Your task to perform on an android device: open a bookmark in the chrome app Image 0: 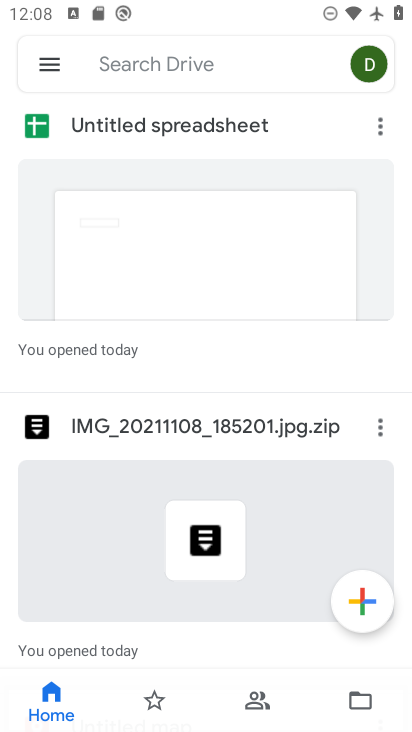
Step 0: press home button
Your task to perform on an android device: open a bookmark in the chrome app Image 1: 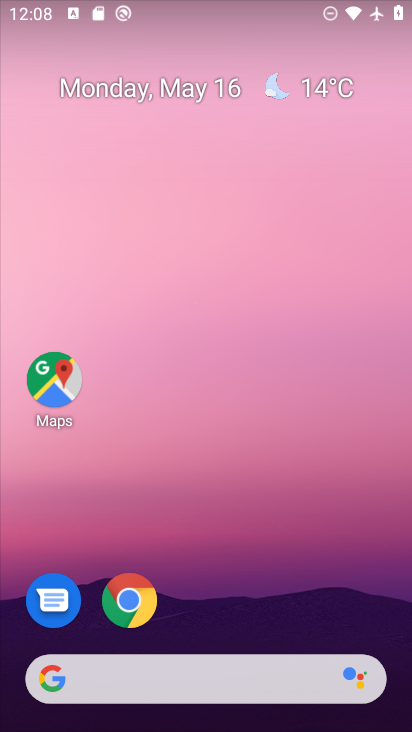
Step 1: click (129, 598)
Your task to perform on an android device: open a bookmark in the chrome app Image 2: 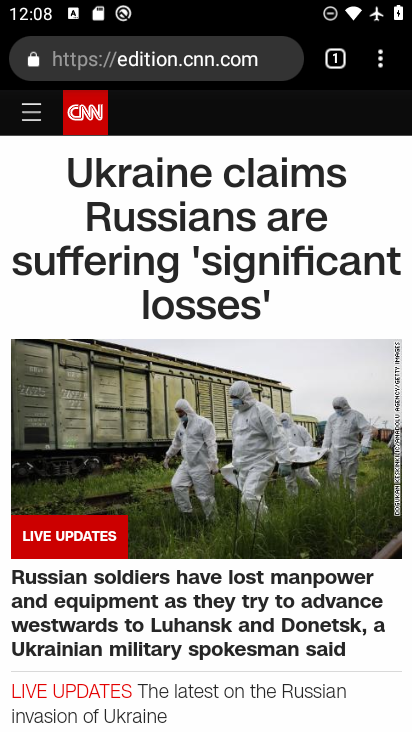
Step 2: click (378, 66)
Your task to perform on an android device: open a bookmark in the chrome app Image 3: 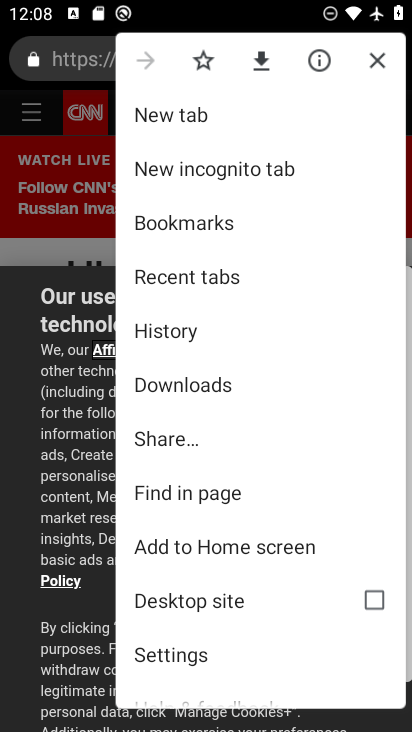
Step 3: click (179, 224)
Your task to perform on an android device: open a bookmark in the chrome app Image 4: 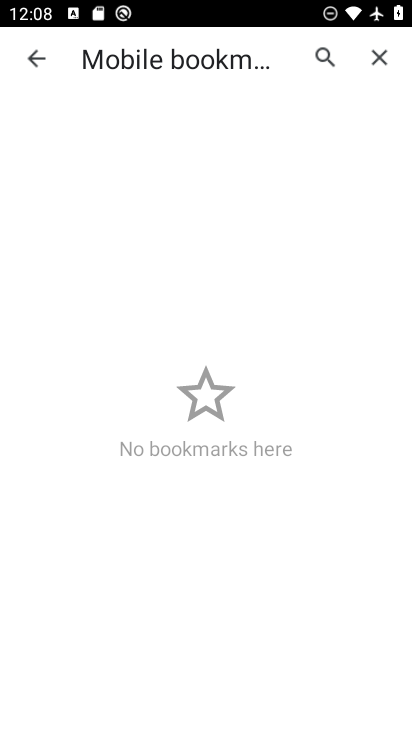
Step 4: task complete